Your task to perform on an android device: open app "LiveIn - Share Your Moment" (install if not already installed) and go to login screen Image 0: 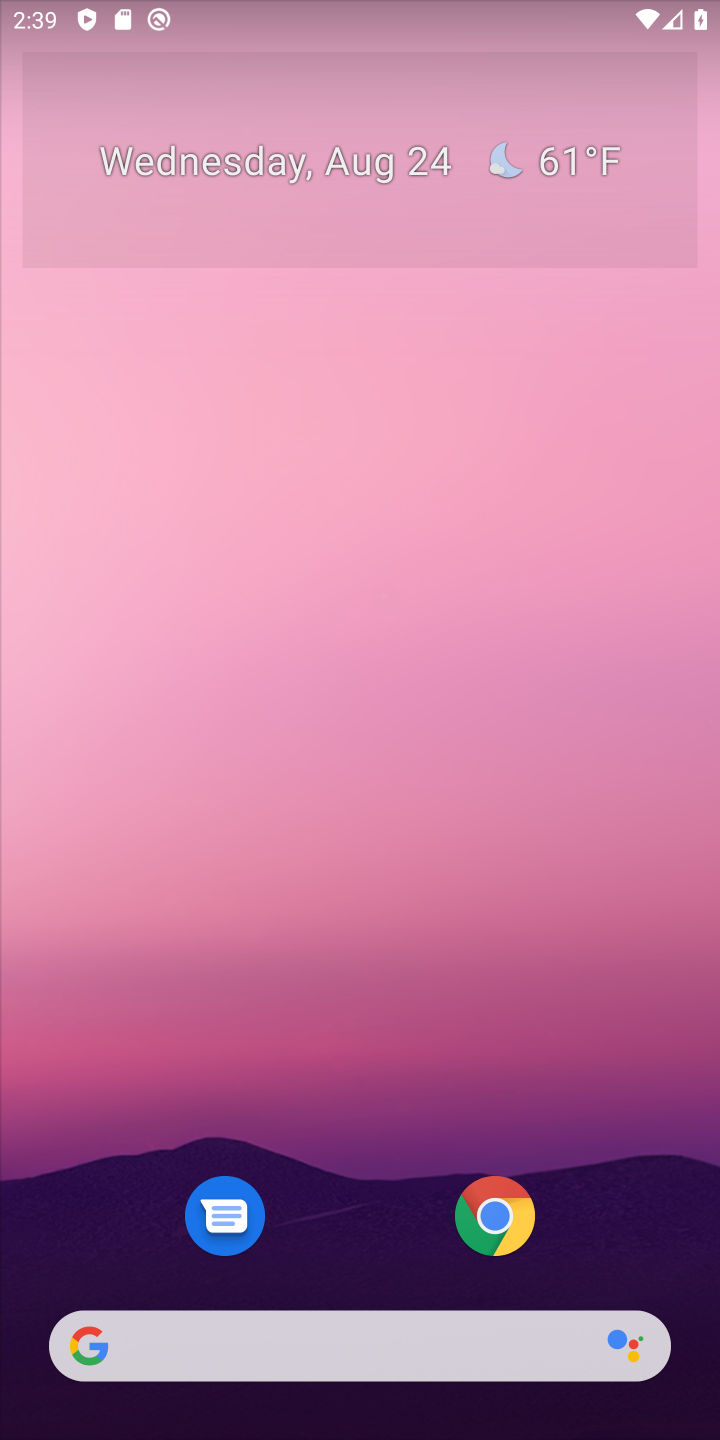
Step 0: press home button
Your task to perform on an android device: open app "LiveIn - Share Your Moment" (install if not already installed) and go to login screen Image 1: 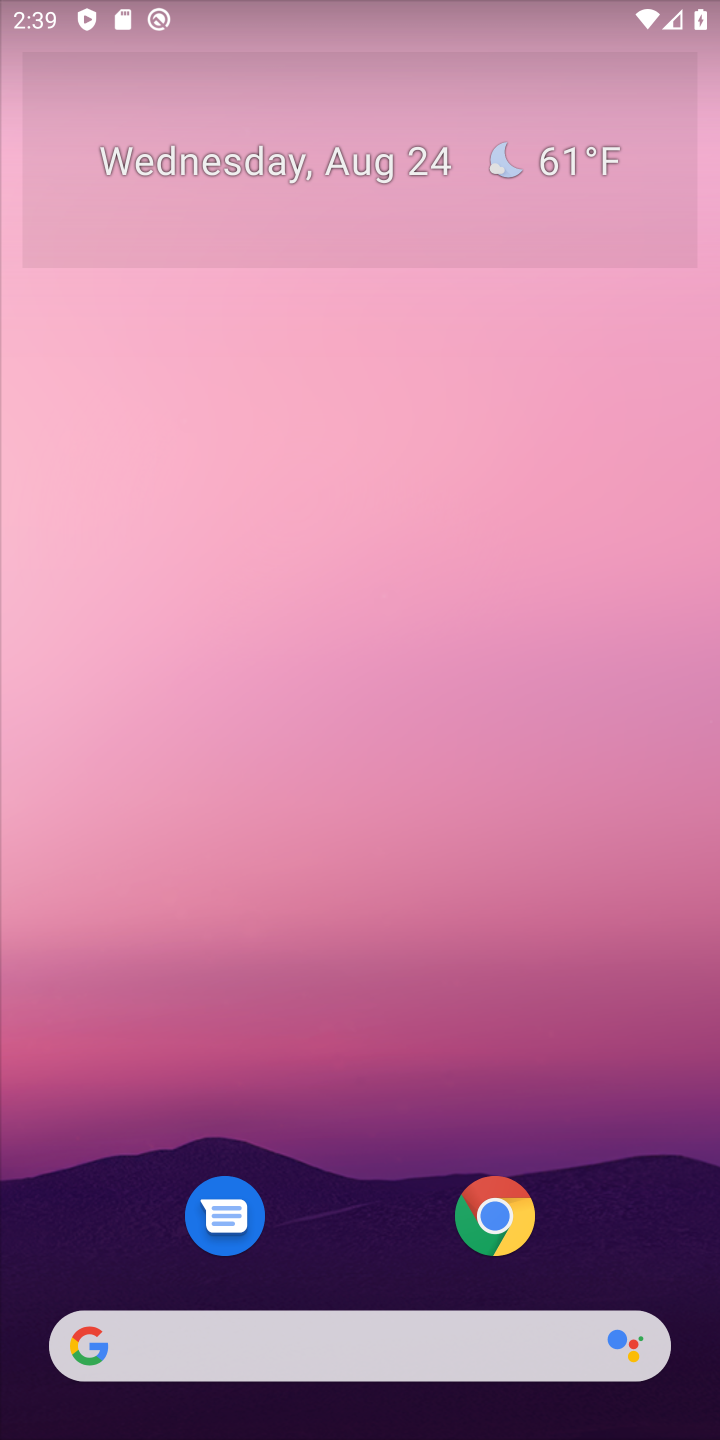
Step 1: drag from (639, 1156) to (583, 194)
Your task to perform on an android device: open app "LiveIn - Share Your Moment" (install if not already installed) and go to login screen Image 2: 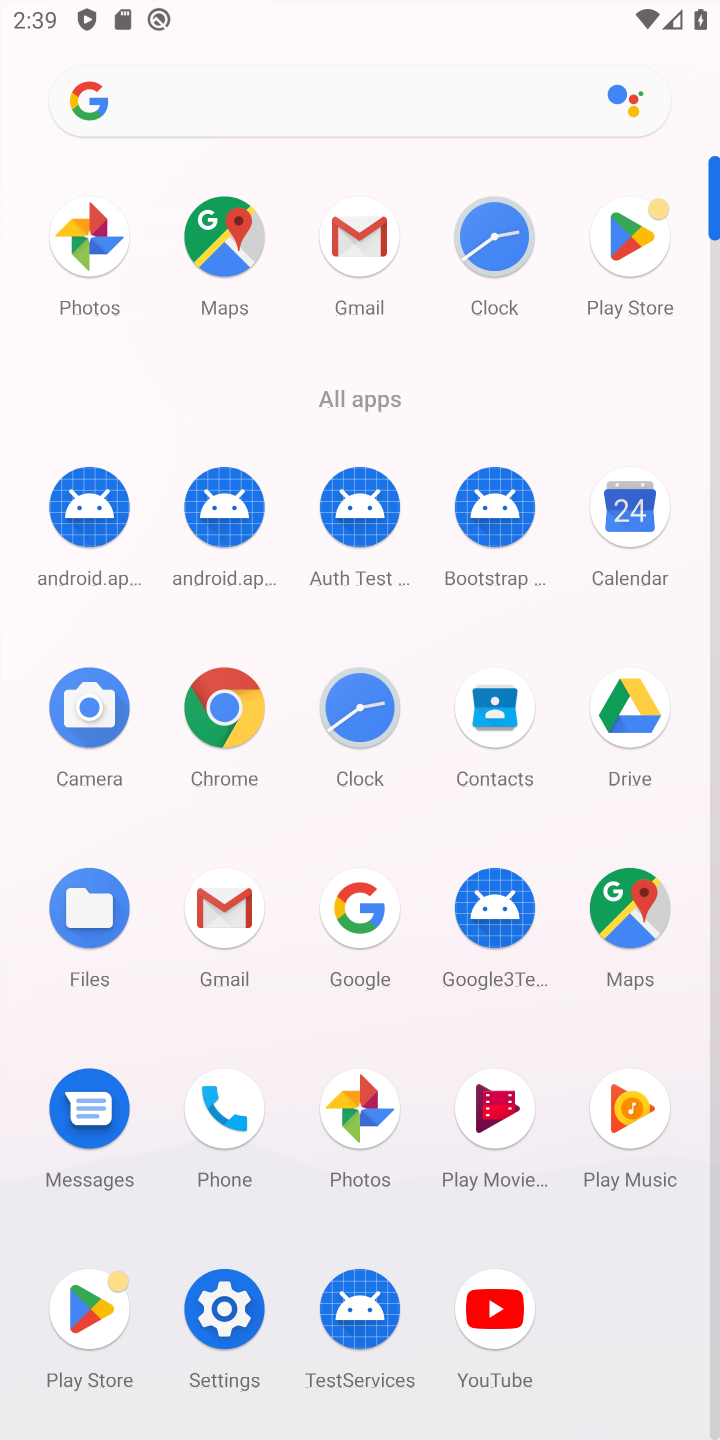
Step 2: click (633, 247)
Your task to perform on an android device: open app "LiveIn - Share Your Moment" (install if not already installed) and go to login screen Image 3: 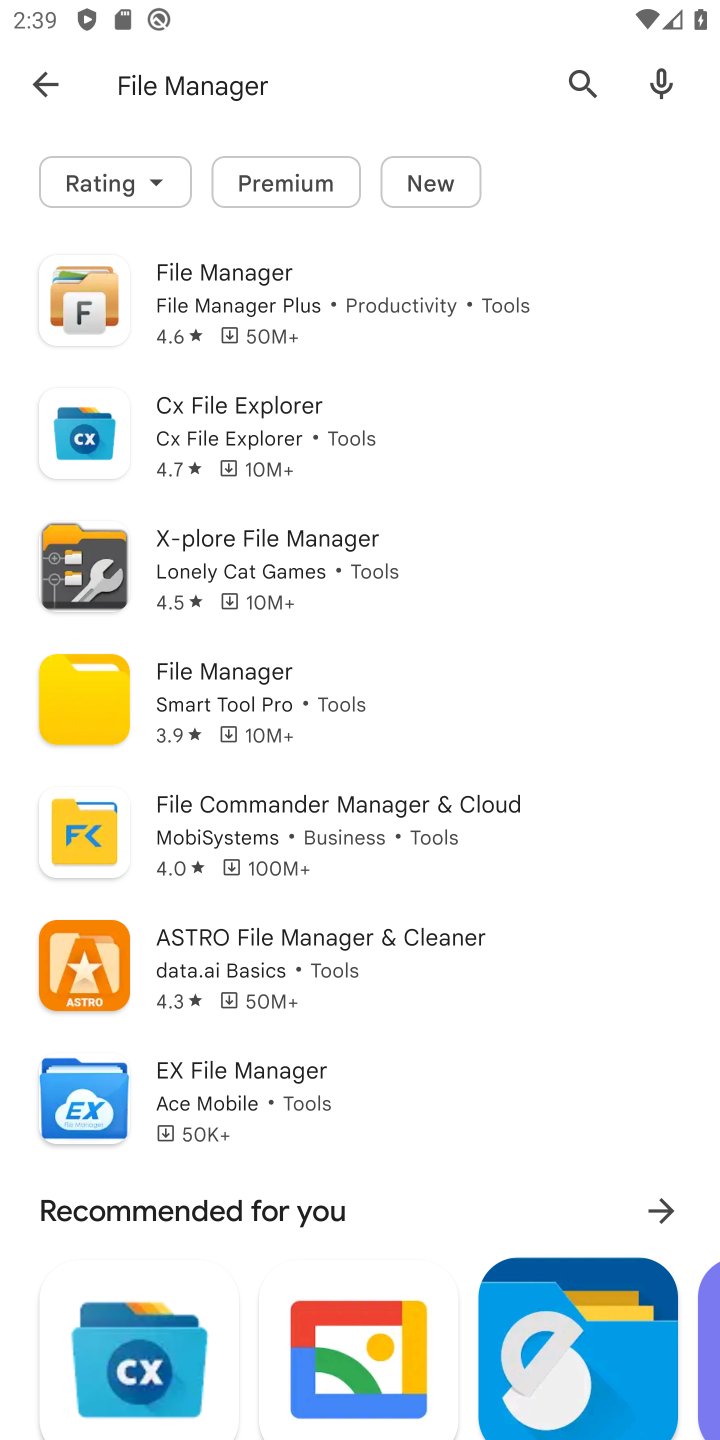
Step 3: press back button
Your task to perform on an android device: open app "LiveIn - Share Your Moment" (install if not already installed) and go to login screen Image 4: 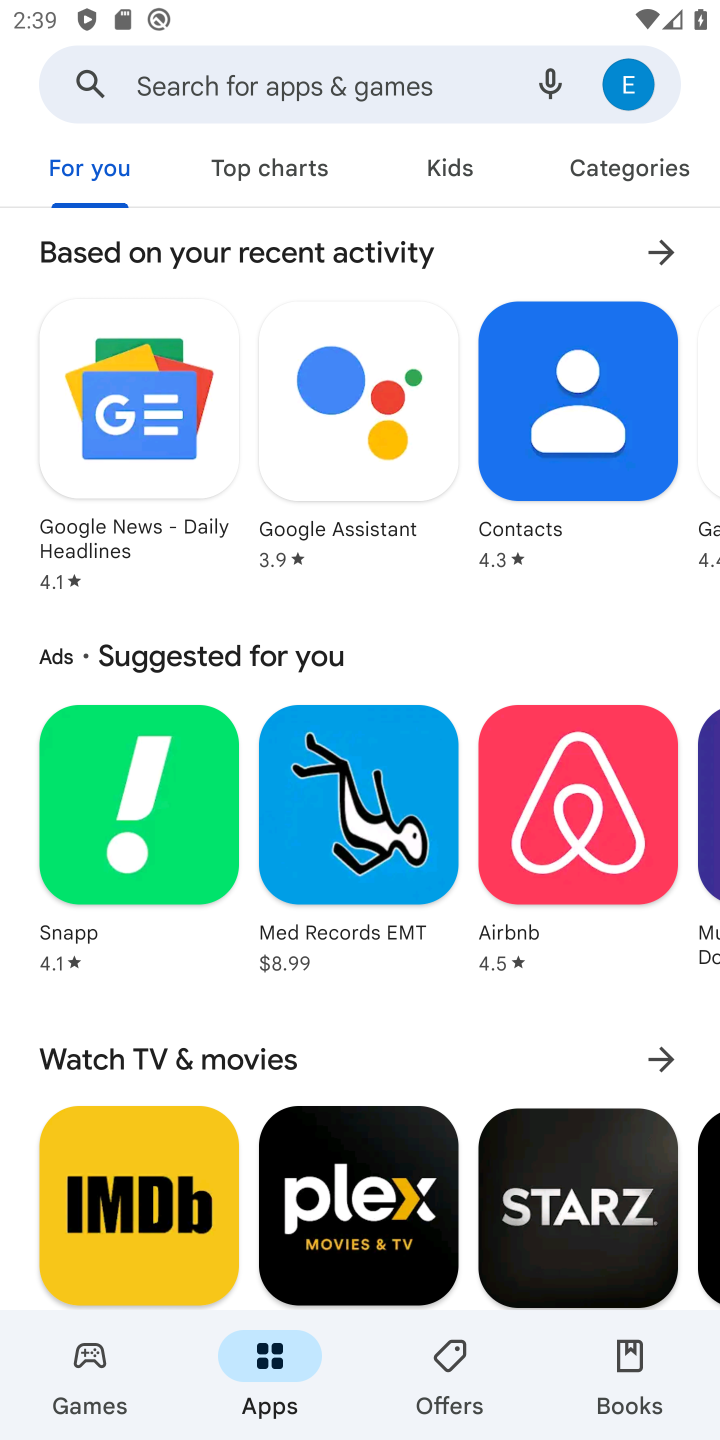
Step 4: click (293, 73)
Your task to perform on an android device: open app "LiveIn - Share Your Moment" (install if not already installed) and go to login screen Image 5: 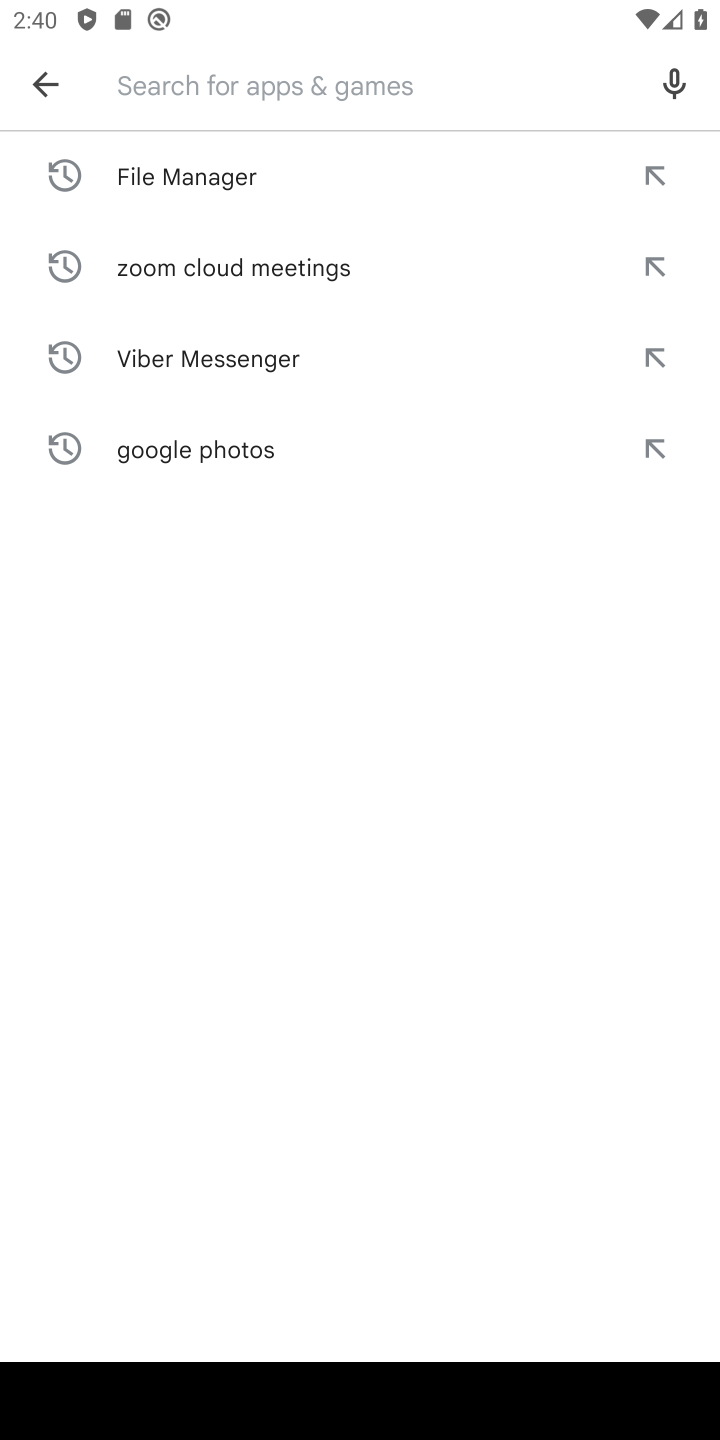
Step 5: press enter
Your task to perform on an android device: open app "LiveIn - Share Your Moment" (install if not already installed) and go to login screen Image 6: 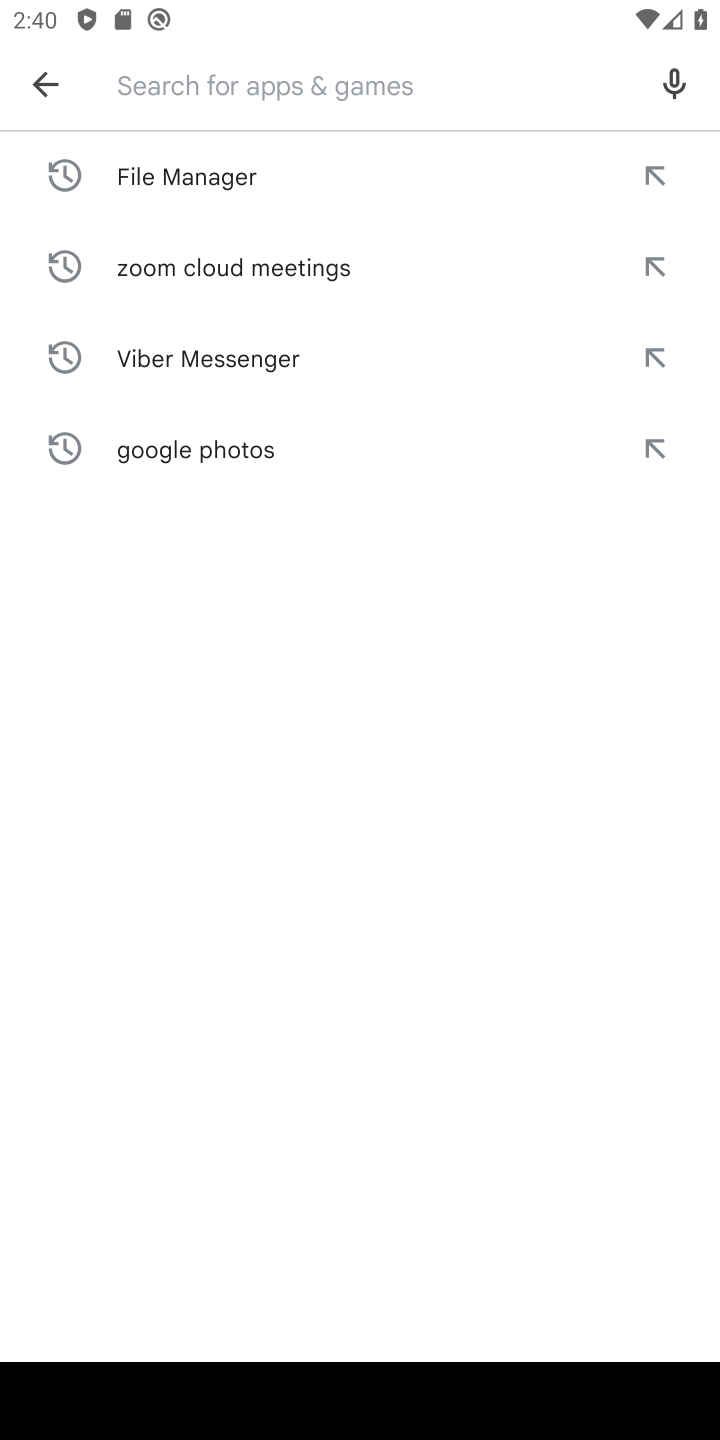
Step 6: type "LiveIn - Share Your Moment"
Your task to perform on an android device: open app "LiveIn - Share Your Moment" (install if not already installed) and go to login screen Image 7: 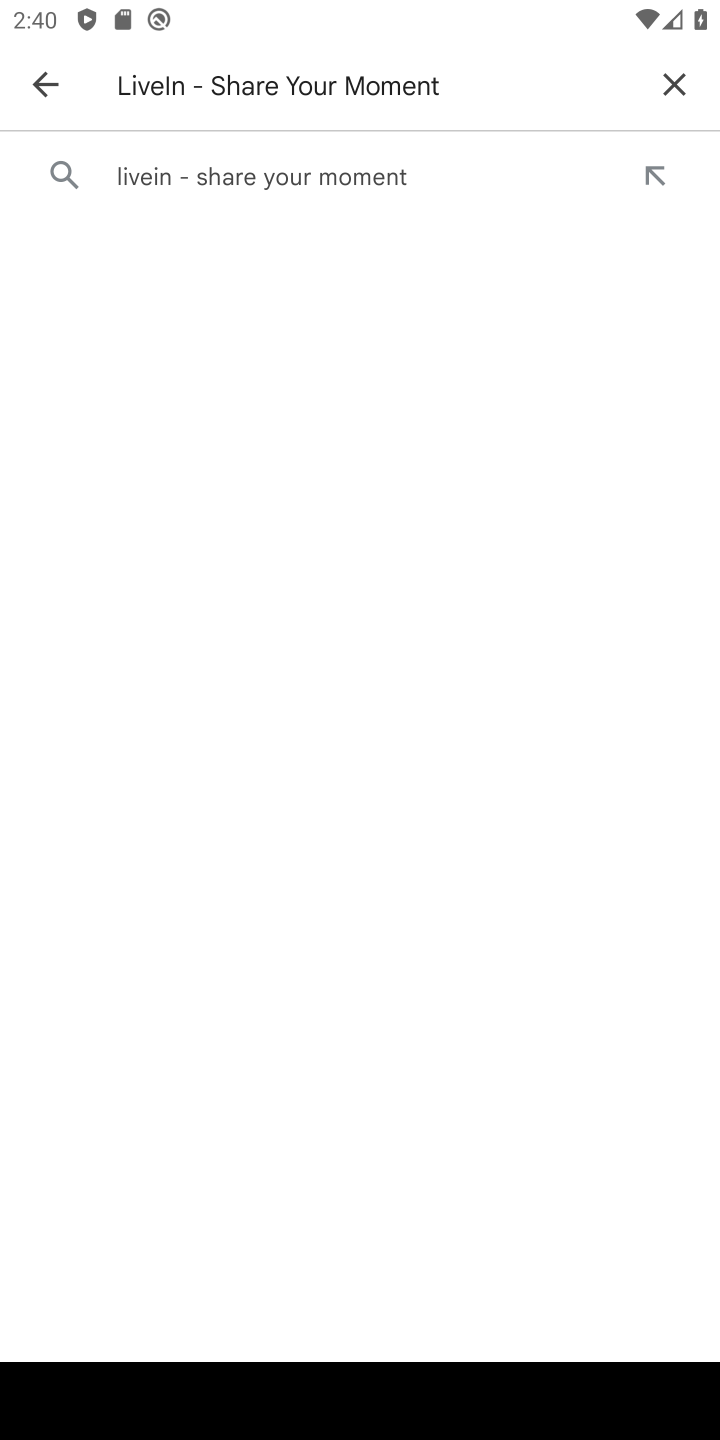
Step 7: click (265, 176)
Your task to perform on an android device: open app "LiveIn - Share Your Moment" (install if not already installed) and go to login screen Image 8: 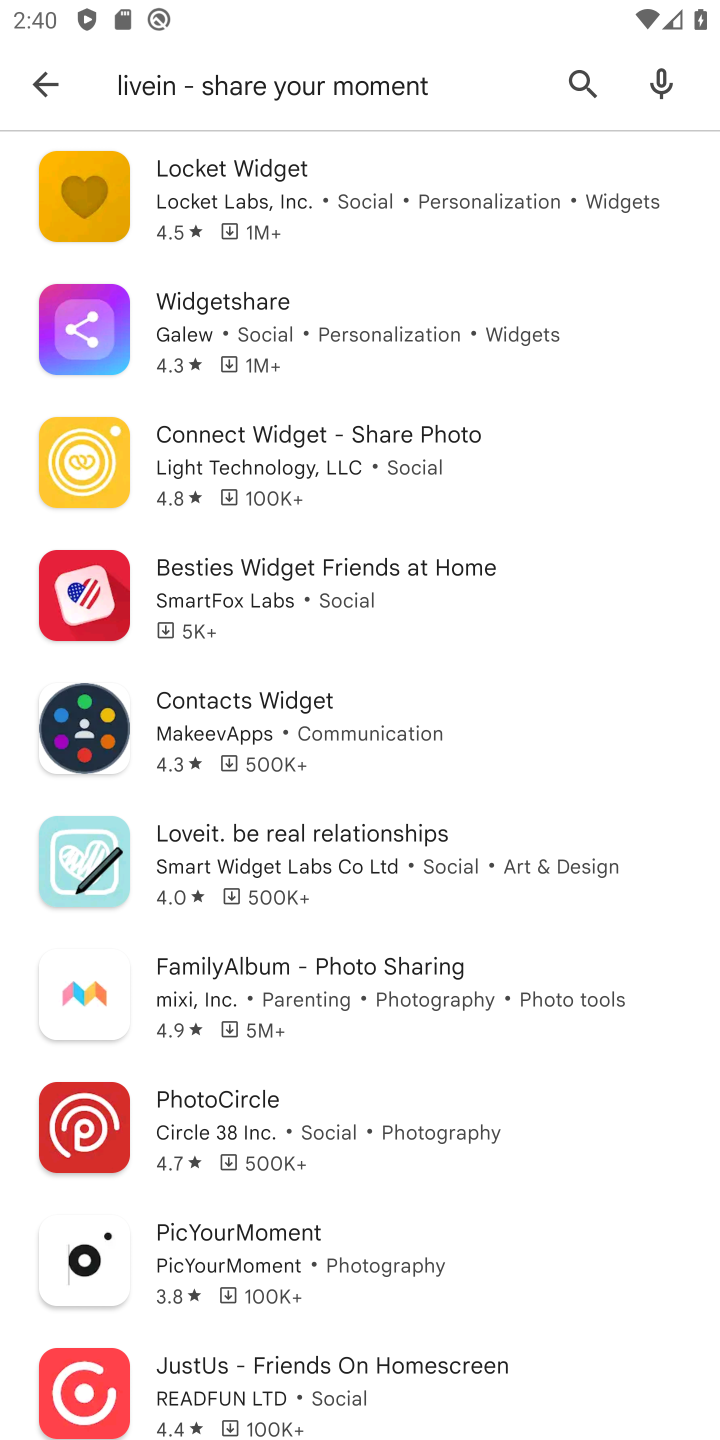
Step 8: task complete